Your task to perform on an android device: uninstall "Life360: Find Family & Friends" Image 0: 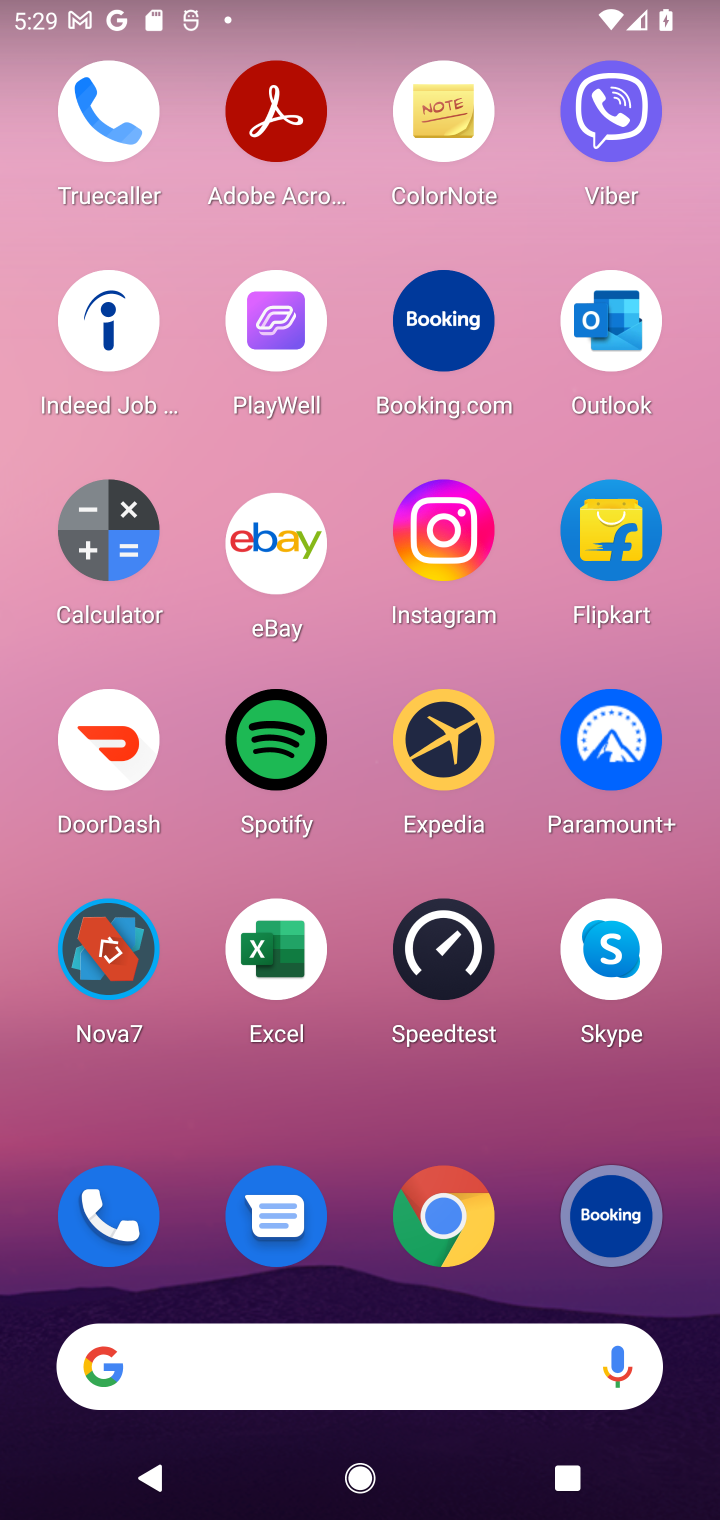
Step 0: drag from (532, 1293) to (548, 246)
Your task to perform on an android device: uninstall "Life360: Find Family & Friends" Image 1: 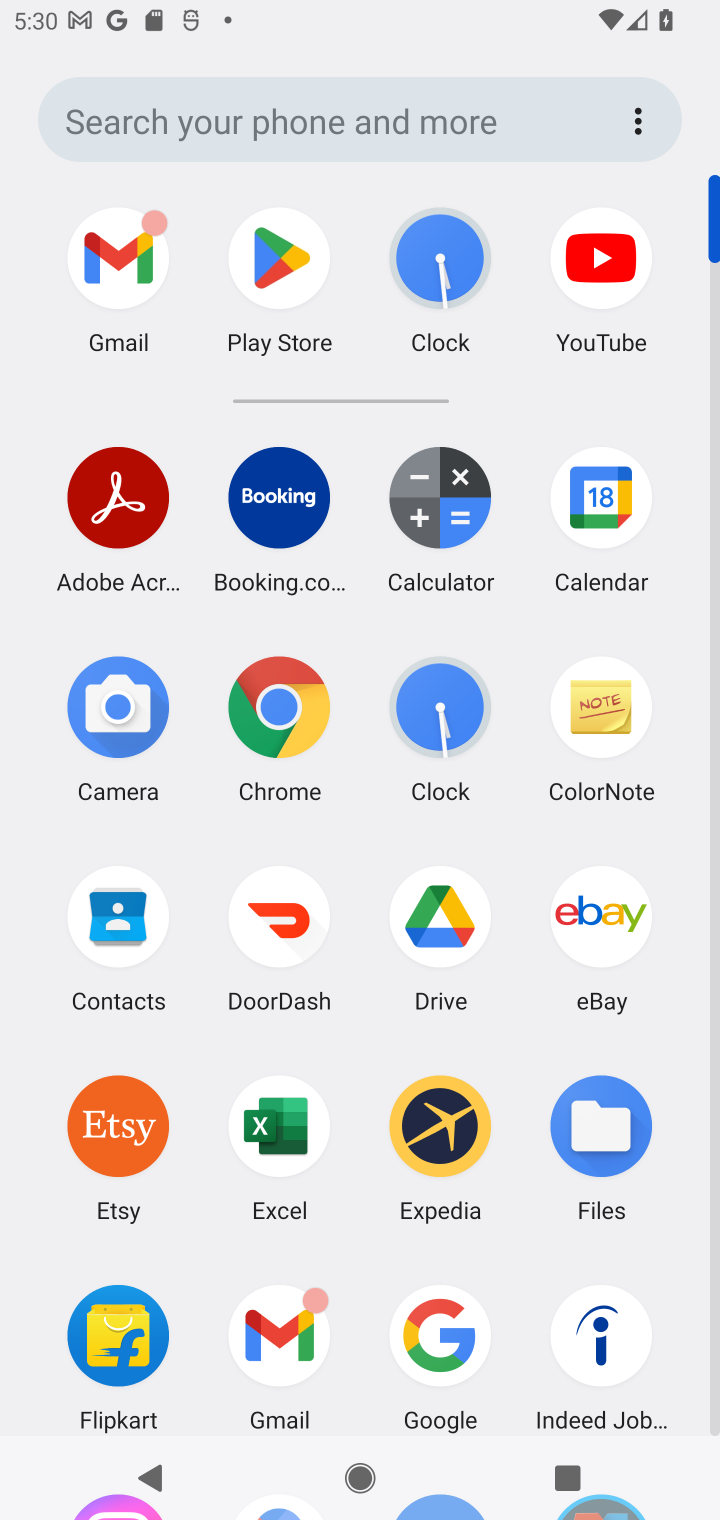
Step 1: drag from (689, 1380) to (683, 434)
Your task to perform on an android device: uninstall "Life360: Find Family & Friends" Image 2: 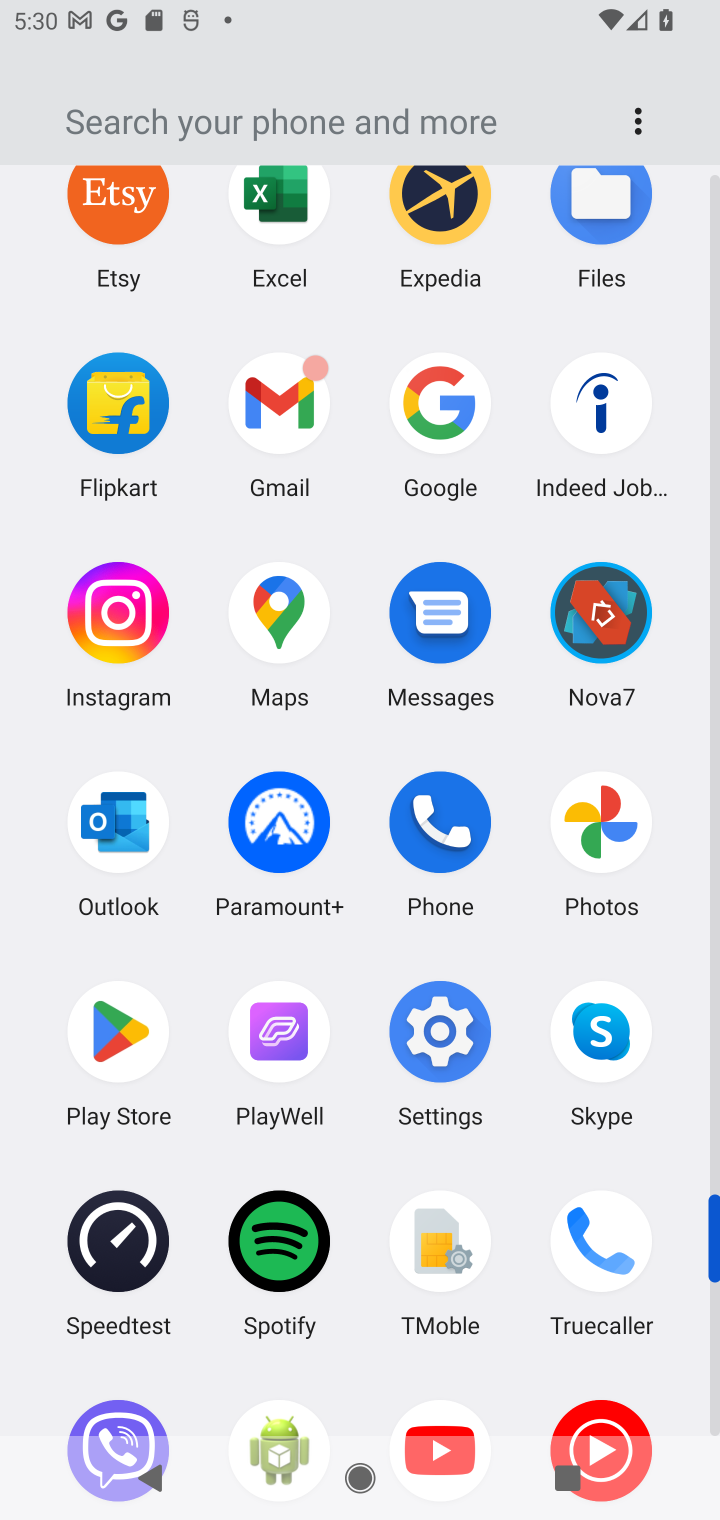
Step 2: click (123, 1032)
Your task to perform on an android device: uninstall "Life360: Find Family & Friends" Image 3: 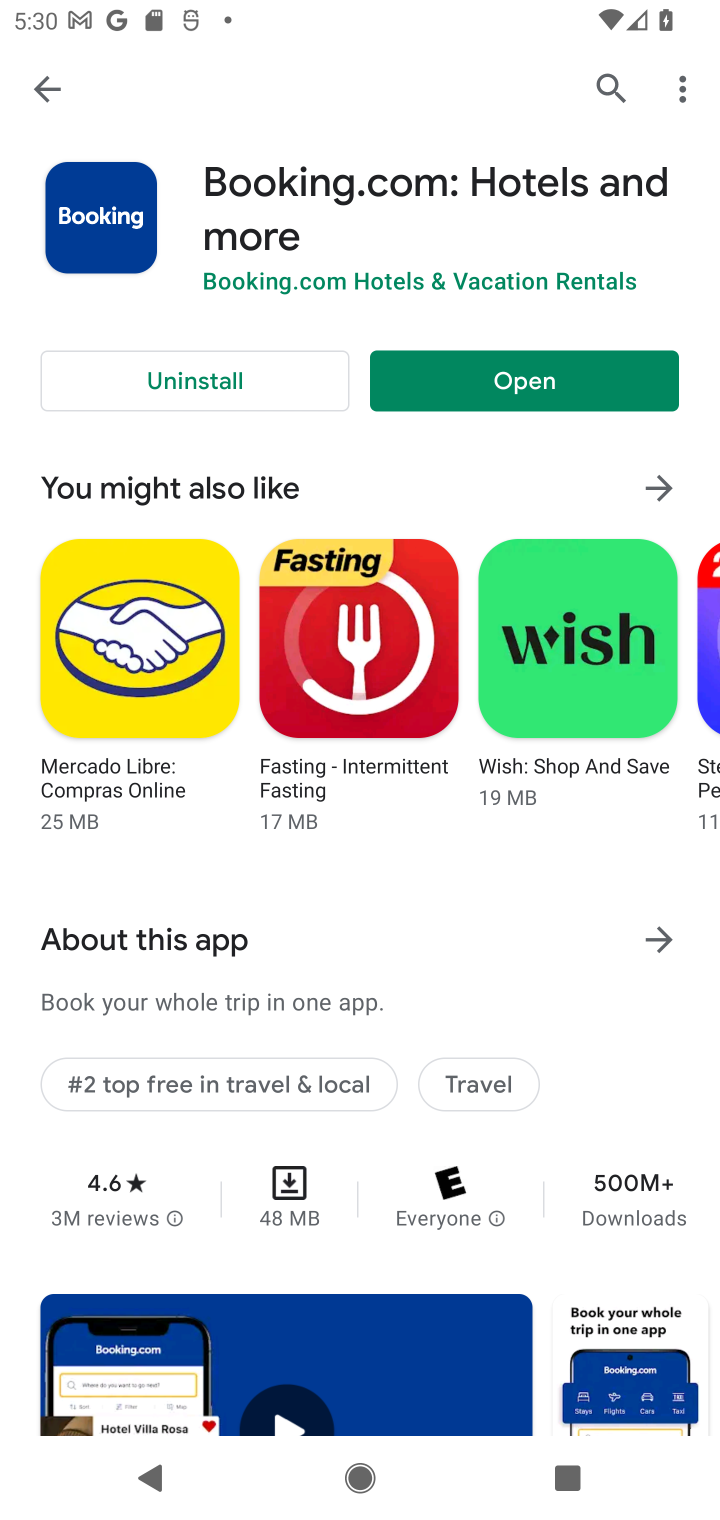
Step 3: click (600, 79)
Your task to perform on an android device: uninstall "Life360: Find Family & Friends" Image 4: 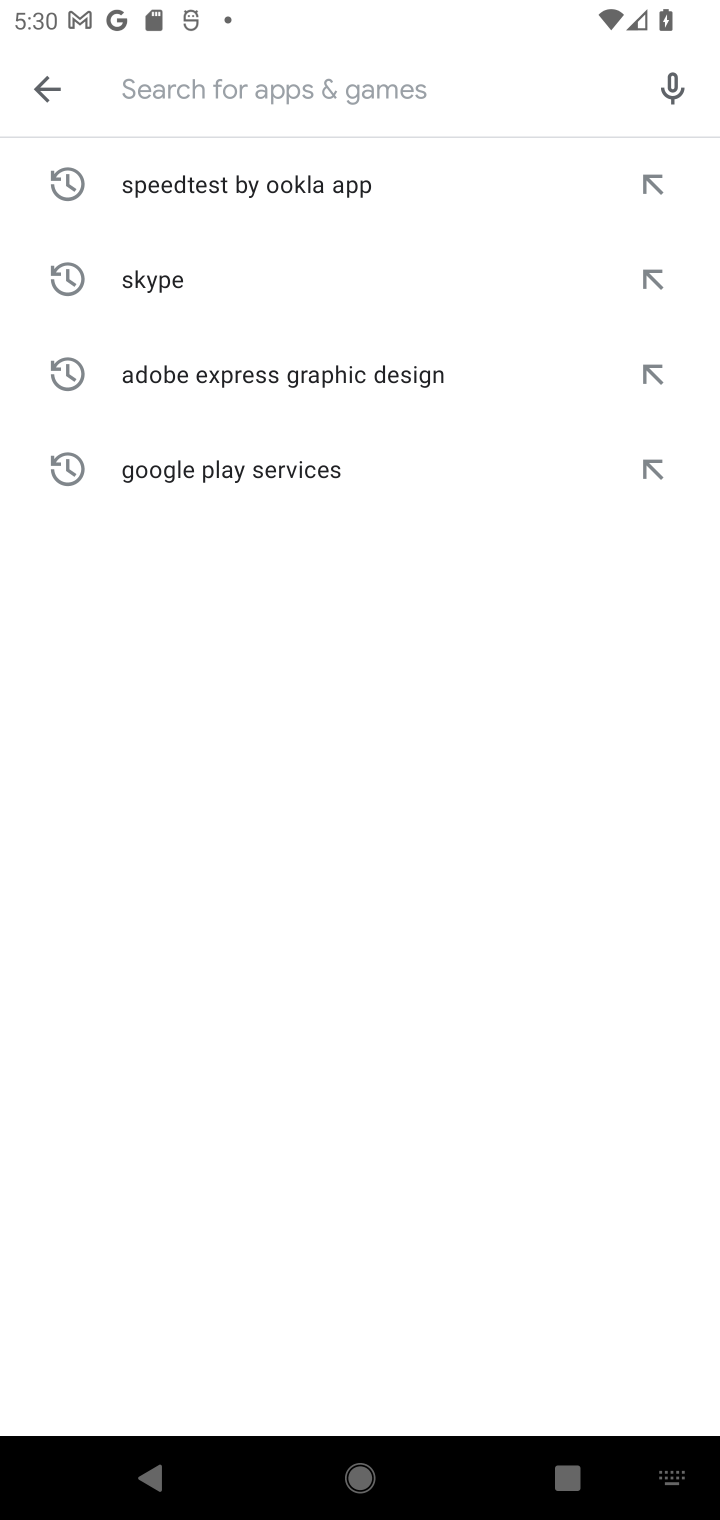
Step 4: type "Life360: Find Family & Friends"
Your task to perform on an android device: uninstall "Life360: Find Family & Friends" Image 5: 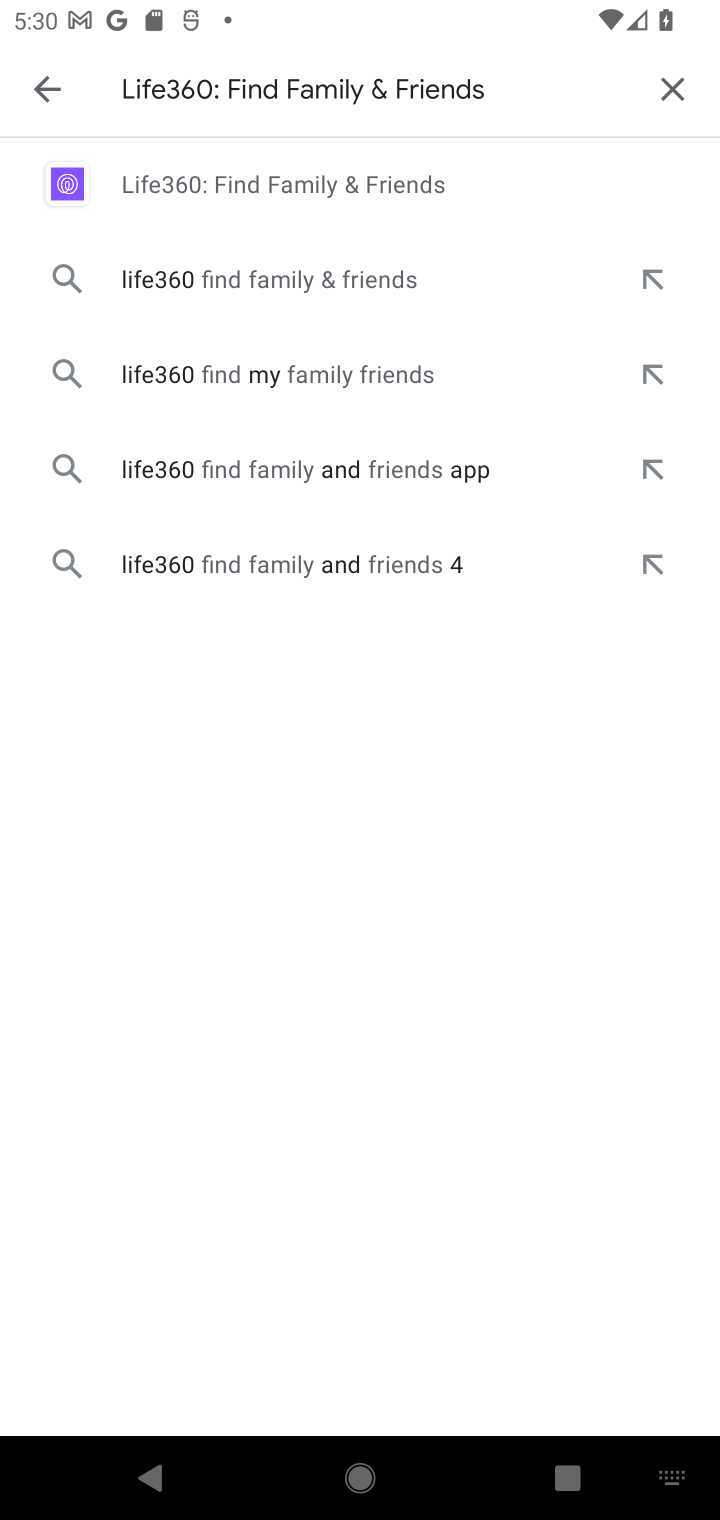
Step 5: click (196, 174)
Your task to perform on an android device: uninstall "Life360: Find Family & Friends" Image 6: 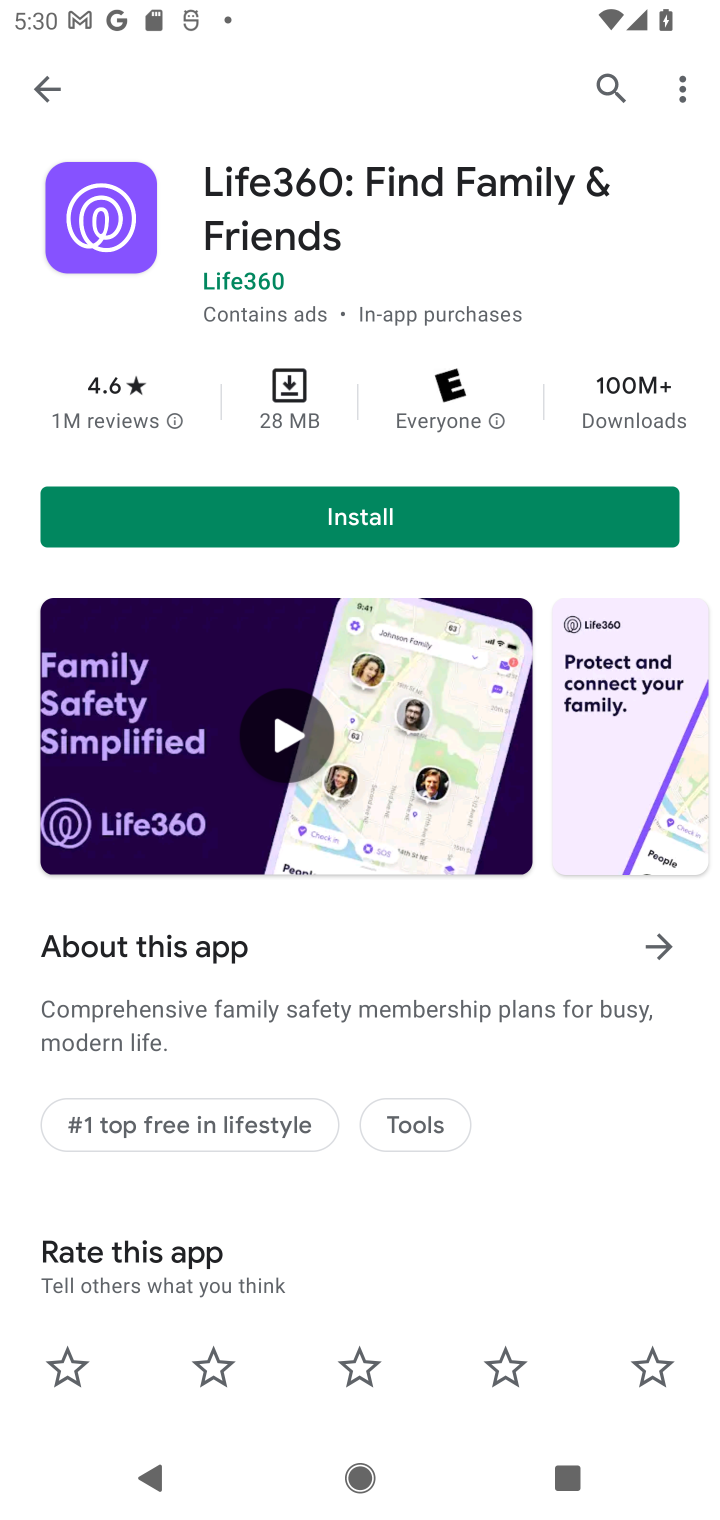
Step 6: task complete